Your task to perform on an android device: Open notification settings Image 0: 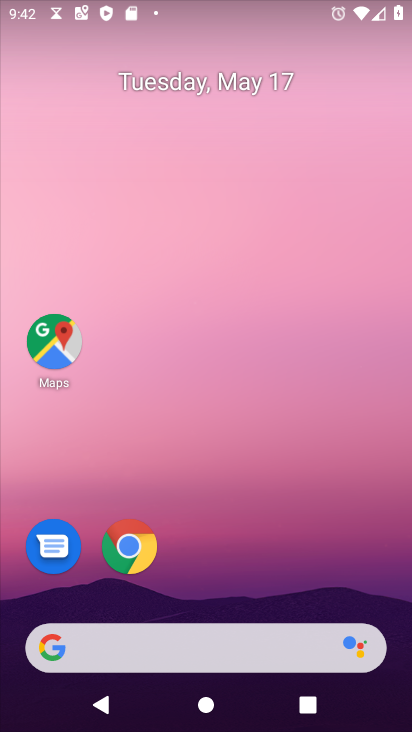
Step 0: drag from (242, 592) to (296, 89)
Your task to perform on an android device: Open notification settings Image 1: 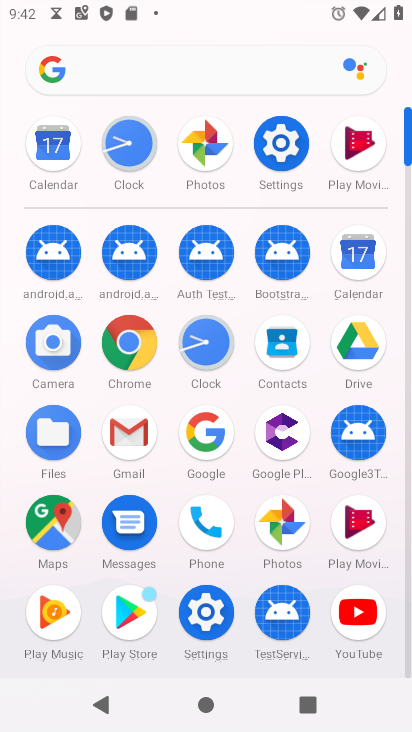
Step 1: click (282, 156)
Your task to perform on an android device: Open notification settings Image 2: 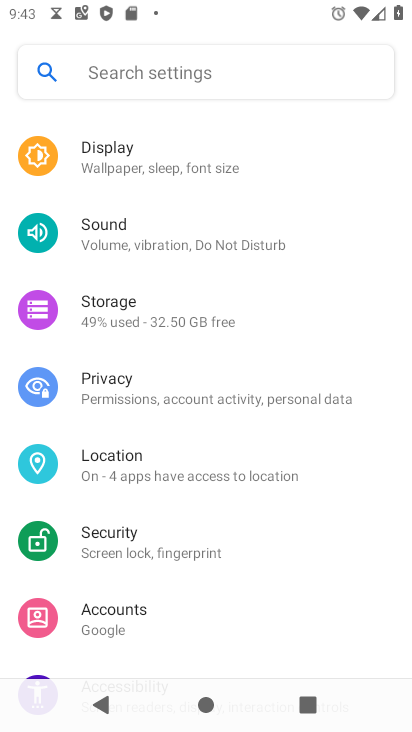
Step 2: drag from (176, 278) to (273, 531)
Your task to perform on an android device: Open notification settings Image 3: 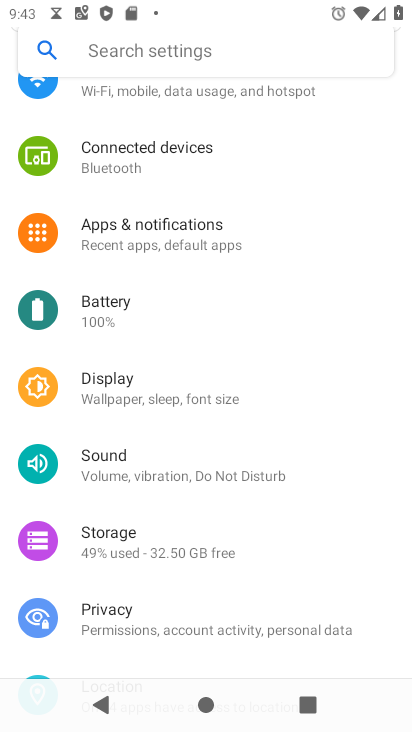
Step 3: click (197, 244)
Your task to perform on an android device: Open notification settings Image 4: 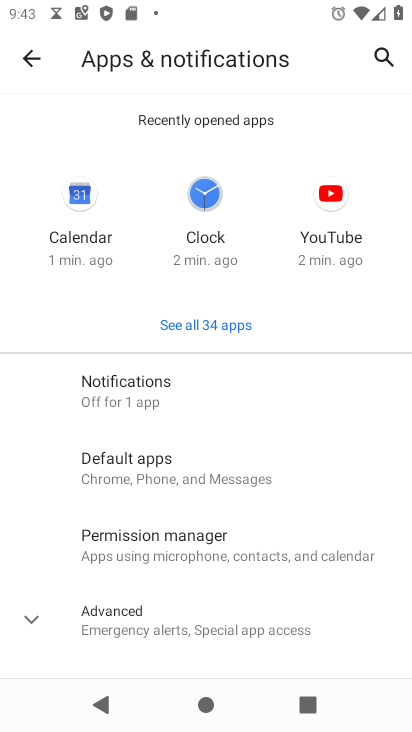
Step 4: click (201, 400)
Your task to perform on an android device: Open notification settings Image 5: 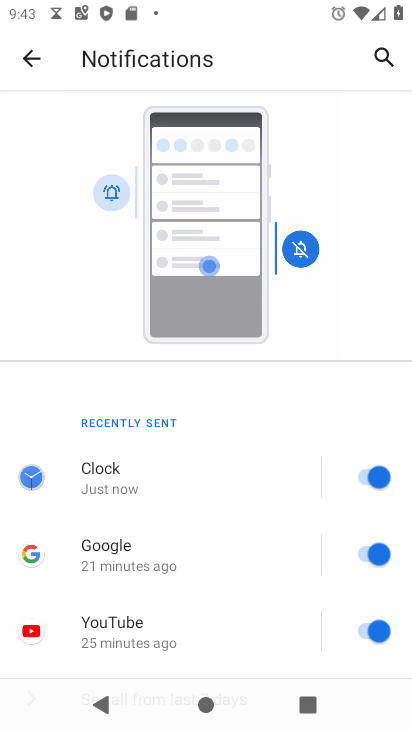
Step 5: task complete